Your task to perform on an android device: Open the calendar and show me this week's events? Image 0: 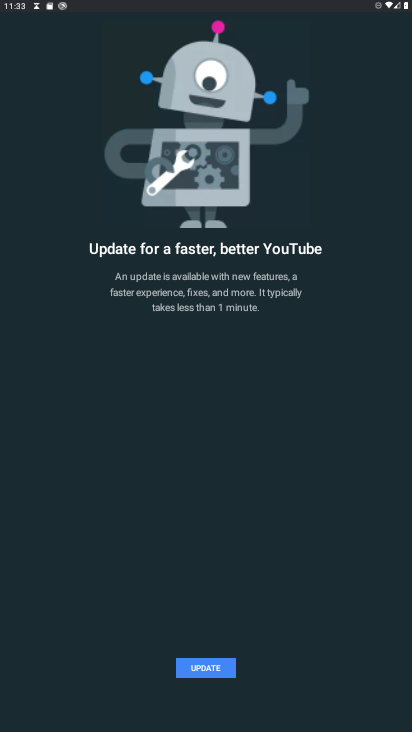
Step 0: press home button
Your task to perform on an android device: Open the calendar and show me this week's events? Image 1: 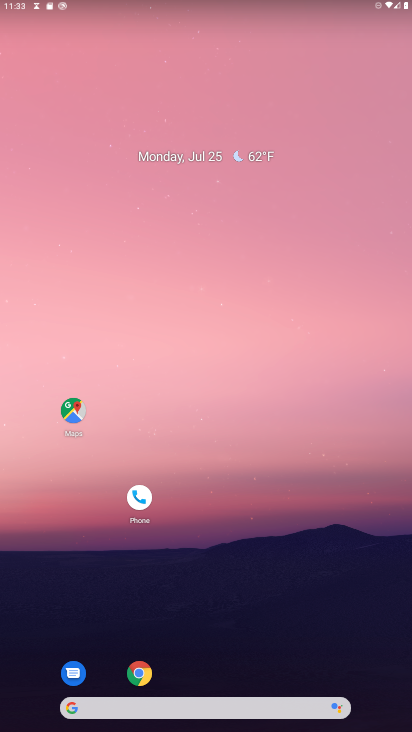
Step 1: drag from (218, 678) to (226, 85)
Your task to perform on an android device: Open the calendar and show me this week's events? Image 2: 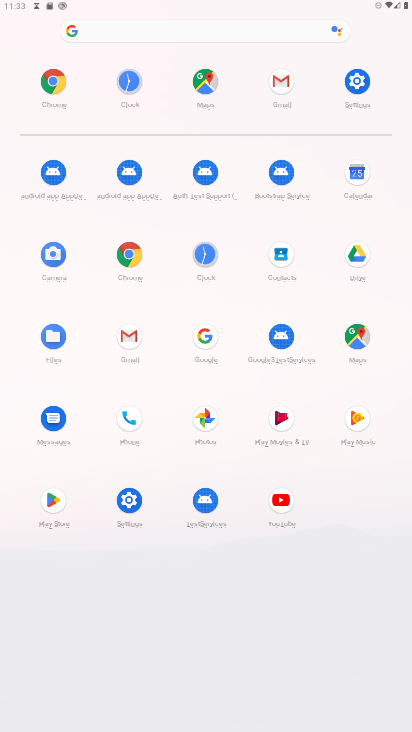
Step 2: click (362, 179)
Your task to perform on an android device: Open the calendar and show me this week's events? Image 3: 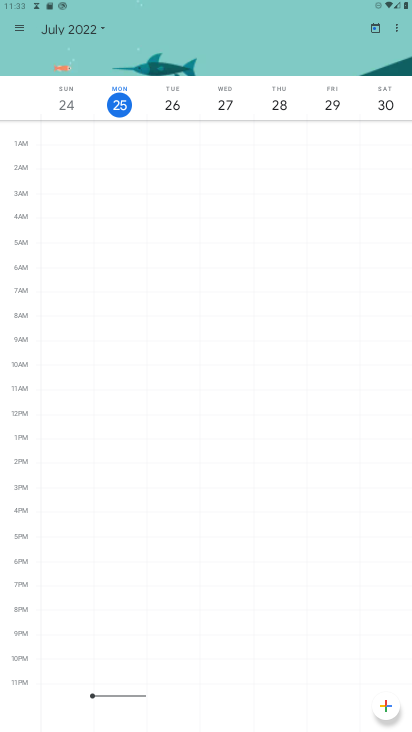
Step 3: click (89, 23)
Your task to perform on an android device: Open the calendar and show me this week's events? Image 4: 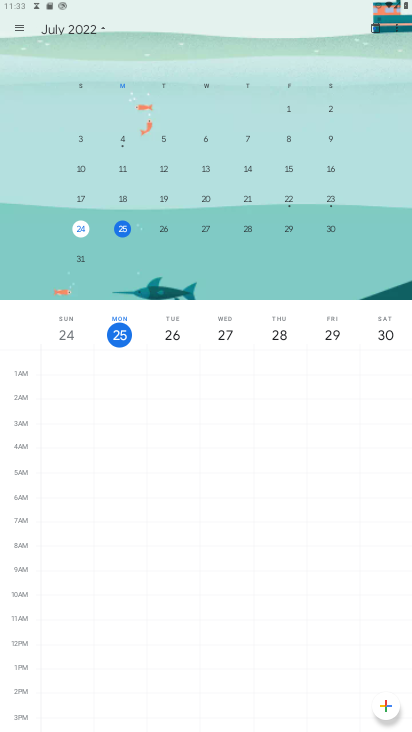
Step 4: click (18, 31)
Your task to perform on an android device: Open the calendar and show me this week's events? Image 5: 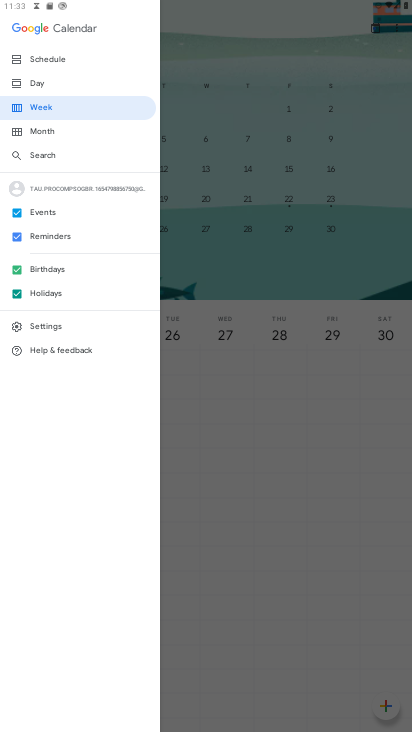
Step 5: click (44, 111)
Your task to perform on an android device: Open the calendar and show me this week's events? Image 6: 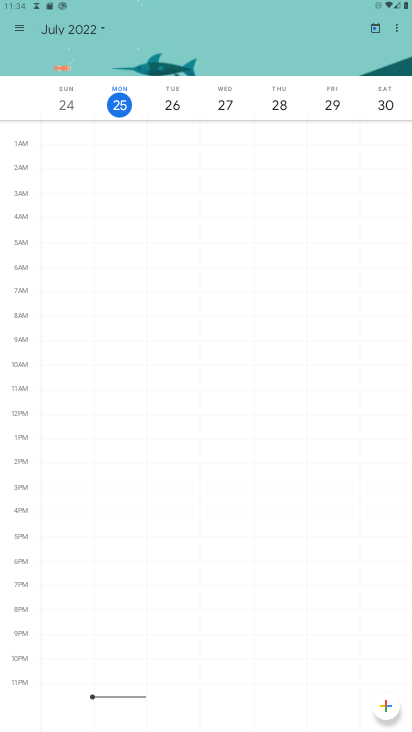
Step 6: task complete